Your task to perform on an android device: Go to settings Image 0: 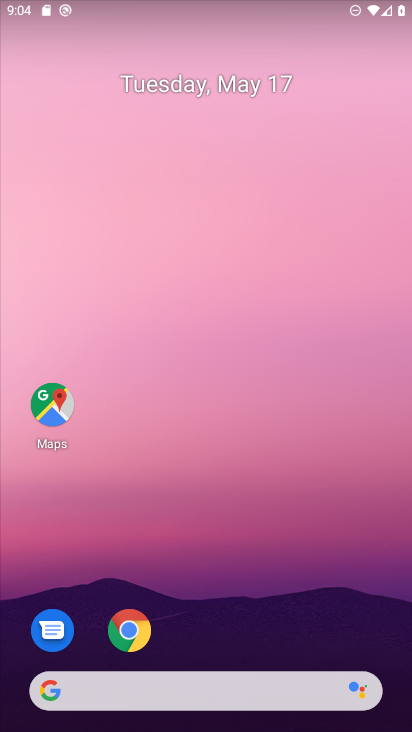
Step 0: drag from (339, 535) to (341, 175)
Your task to perform on an android device: Go to settings Image 1: 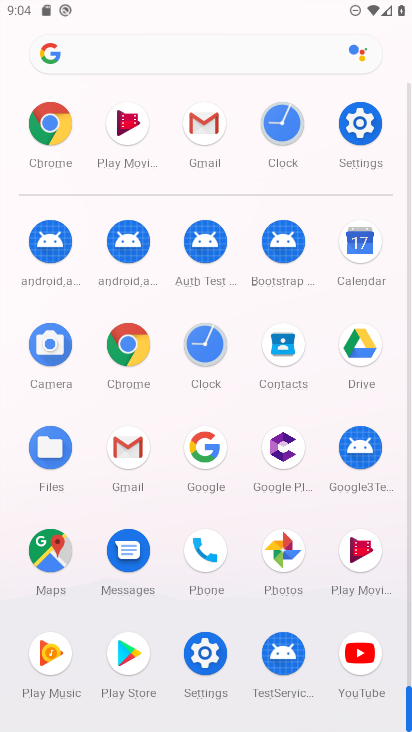
Step 1: click (362, 134)
Your task to perform on an android device: Go to settings Image 2: 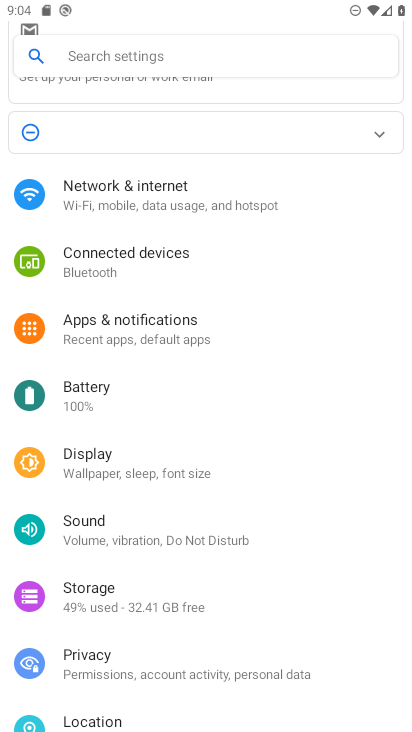
Step 2: task complete